Your task to perform on an android device: Open Reddit.com Image 0: 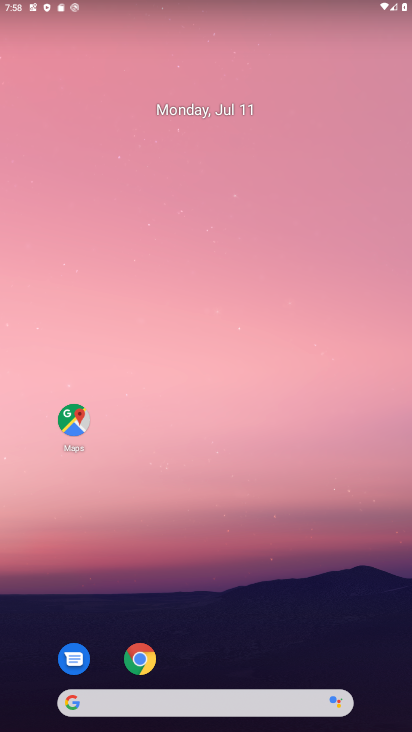
Step 0: drag from (176, 645) to (254, 108)
Your task to perform on an android device: Open Reddit.com Image 1: 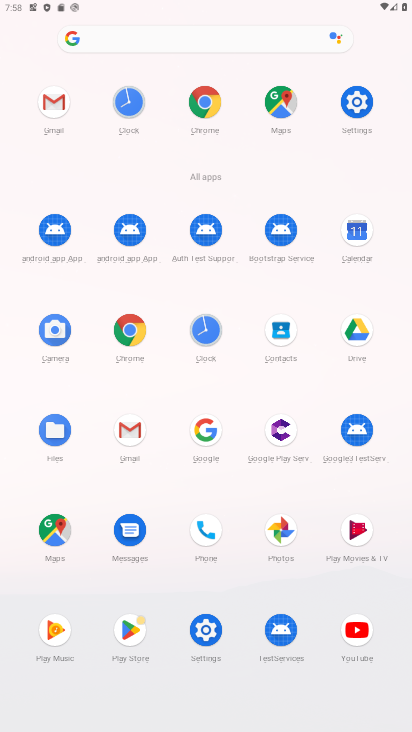
Step 1: click (140, 37)
Your task to perform on an android device: Open Reddit.com Image 2: 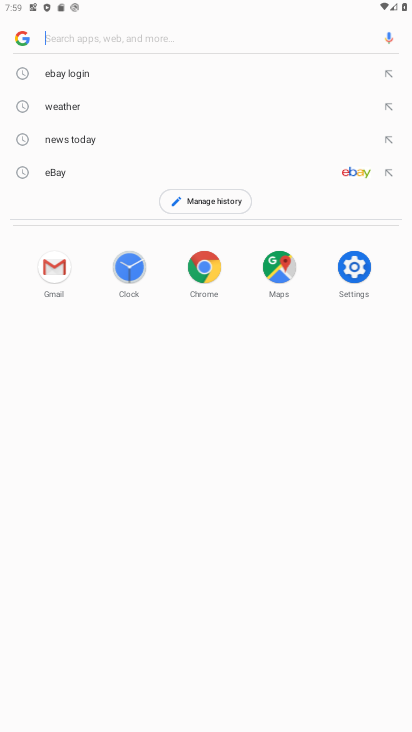
Step 2: type "Reddit.com"
Your task to perform on an android device: Open Reddit.com Image 3: 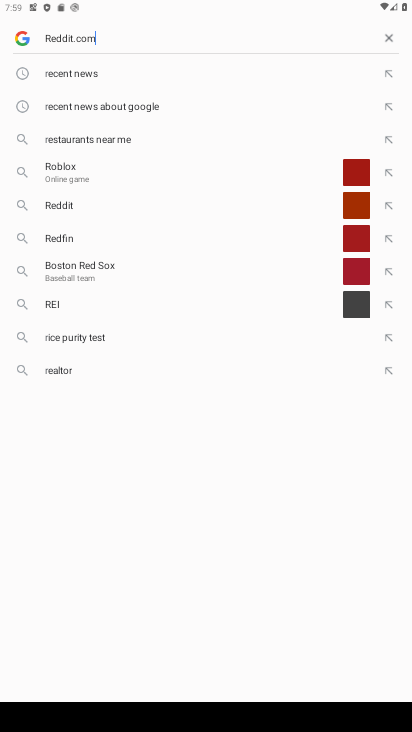
Step 3: type ""
Your task to perform on an android device: Open Reddit.com Image 4: 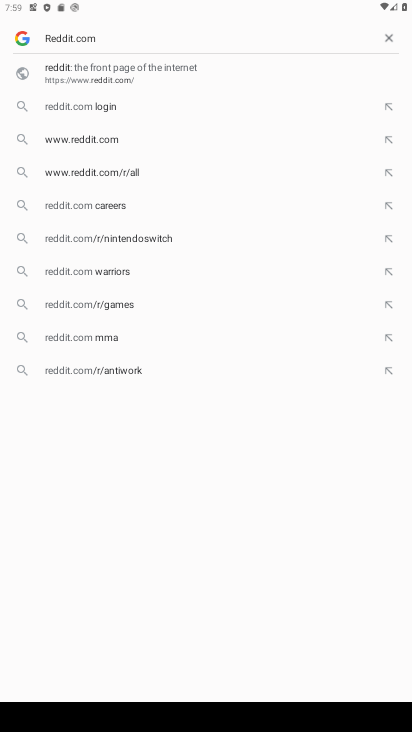
Step 4: click (117, 78)
Your task to perform on an android device: Open Reddit.com Image 5: 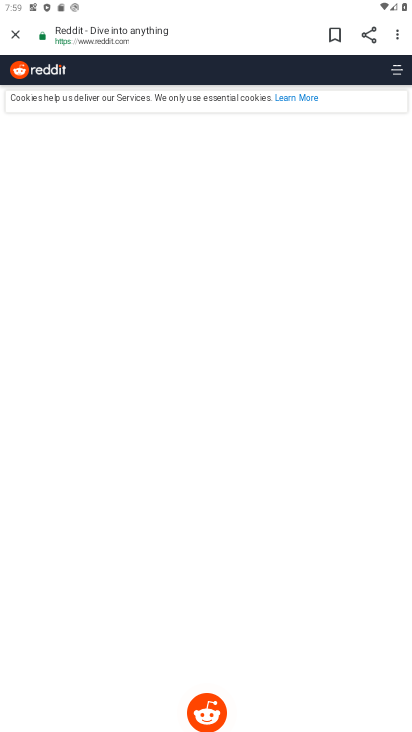
Step 5: task complete